Your task to perform on an android device: remove spam from my inbox in the gmail app Image 0: 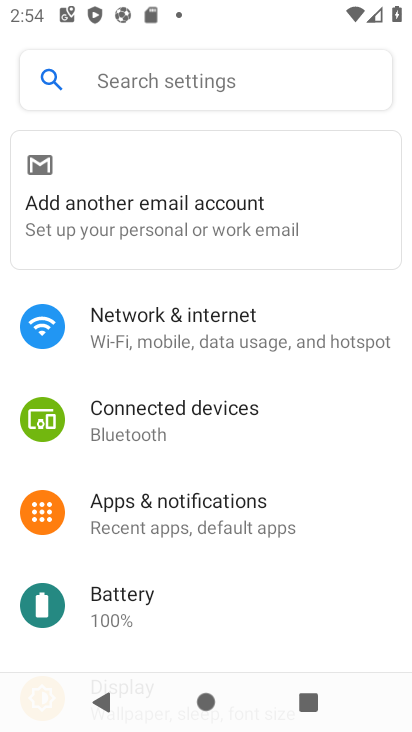
Step 0: press home button
Your task to perform on an android device: remove spam from my inbox in the gmail app Image 1: 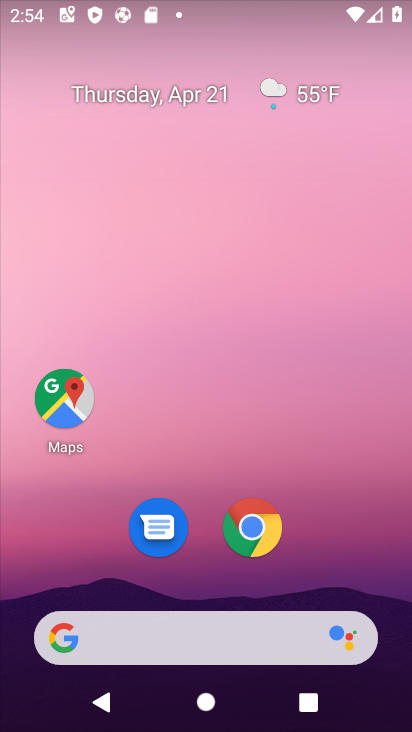
Step 1: drag from (369, 547) to (324, 166)
Your task to perform on an android device: remove spam from my inbox in the gmail app Image 2: 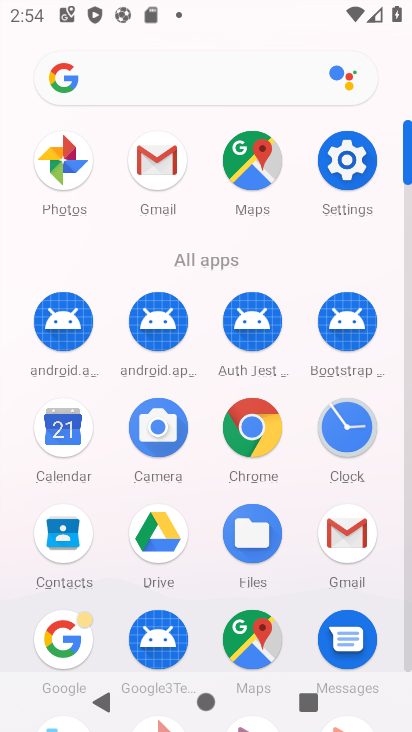
Step 2: click (162, 175)
Your task to perform on an android device: remove spam from my inbox in the gmail app Image 3: 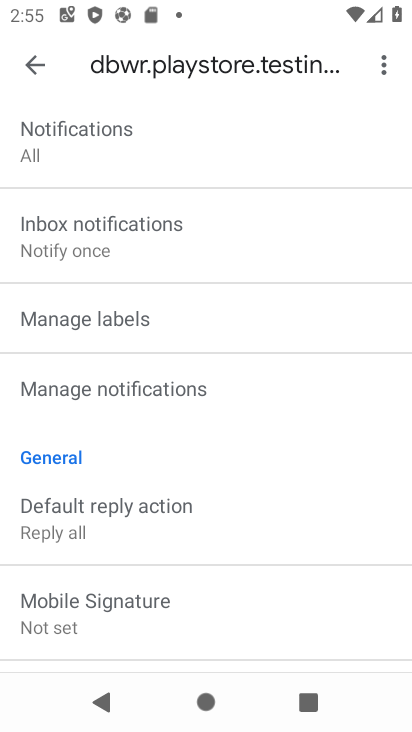
Step 3: press back button
Your task to perform on an android device: remove spam from my inbox in the gmail app Image 4: 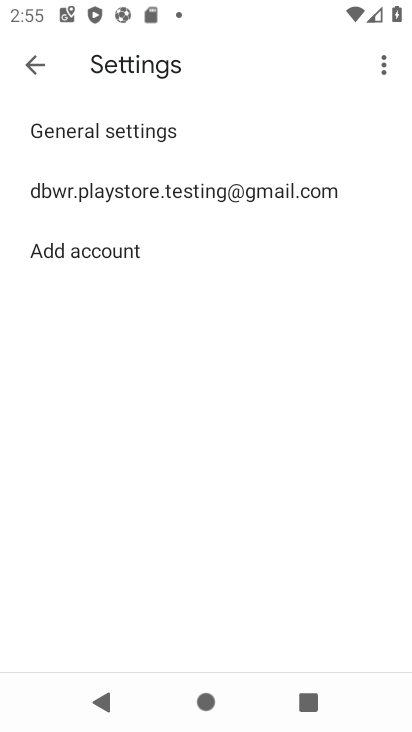
Step 4: click (40, 62)
Your task to perform on an android device: remove spam from my inbox in the gmail app Image 5: 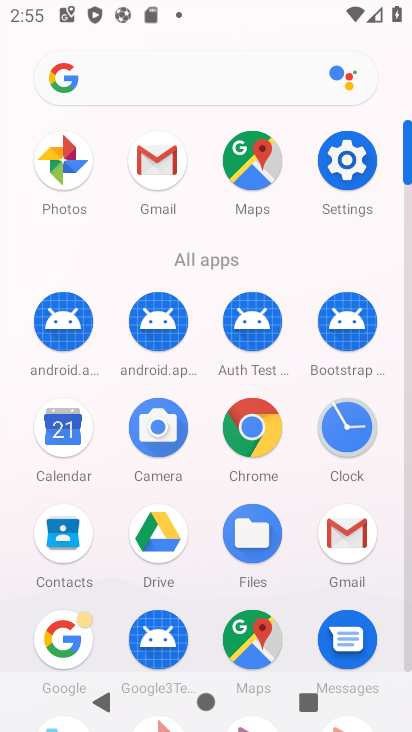
Step 5: click (173, 157)
Your task to perform on an android device: remove spam from my inbox in the gmail app Image 6: 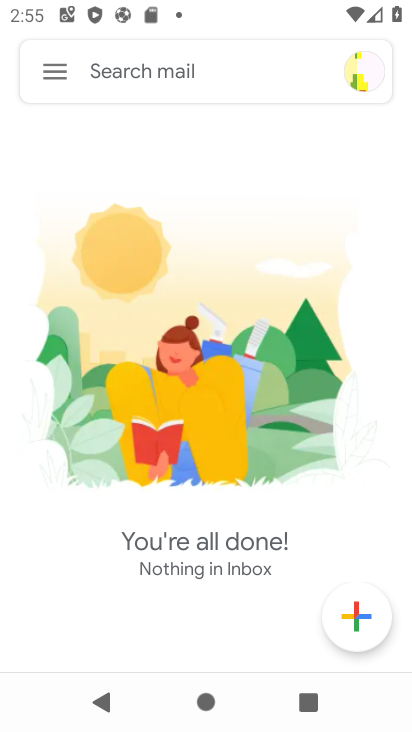
Step 6: click (52, 81)
Your task to perform on an android device: remove spam from my inbox in the gmail app Image 7: 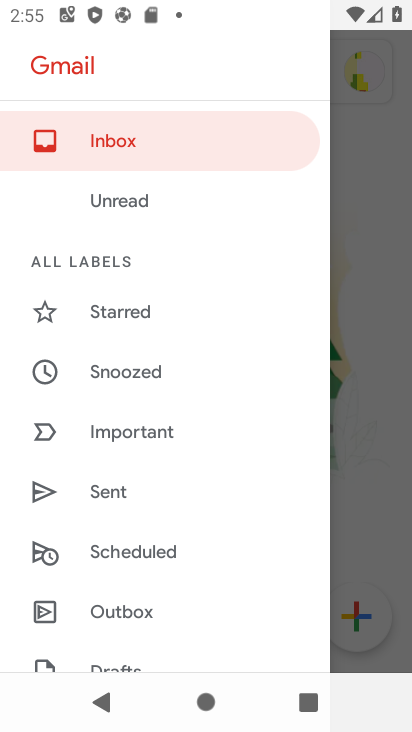
Step 7: drag from (198, 574) to (214, 170)
Your task to perform on an android device: remove spam from my inbox in the gmail app Image 8: 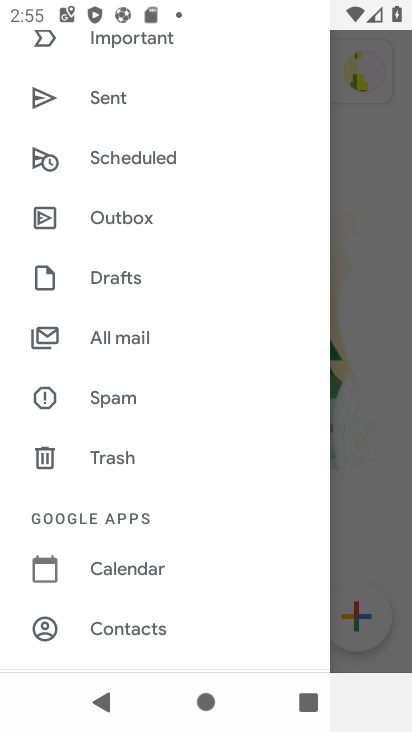
Step 8: click (216, 408)
Your task to perform on an android device: remove spam from my inbox in the gmail app Image 9: 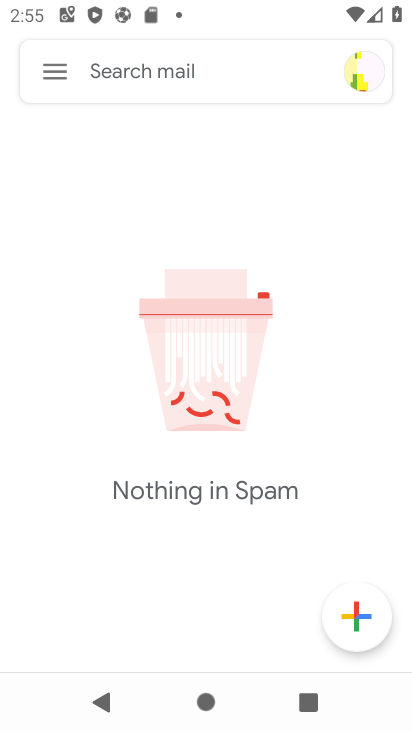
Step 9: task complete